Your task to perform on an android device: Open Yahoo.com Image 0: 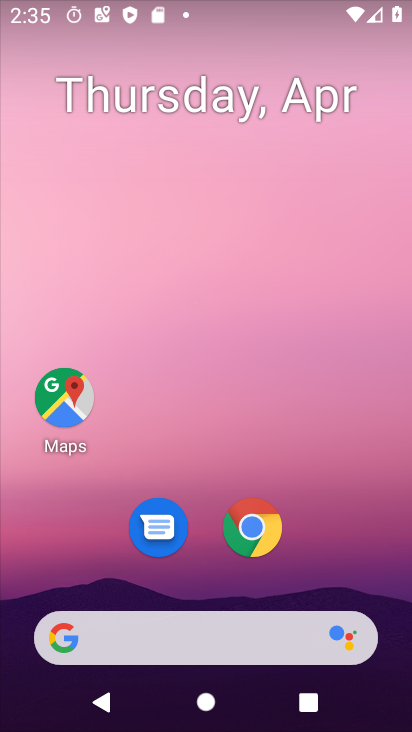
Step 0: click (247, 522)
Your task to perform on an android device: Open Yahoo.com Image 1: 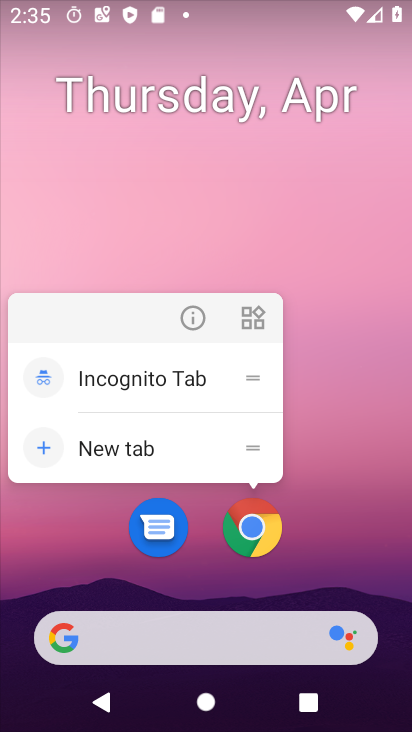
Step 1: click (263, 535)
Your task to perform on an android device: Open Yahoo.com Image 2: 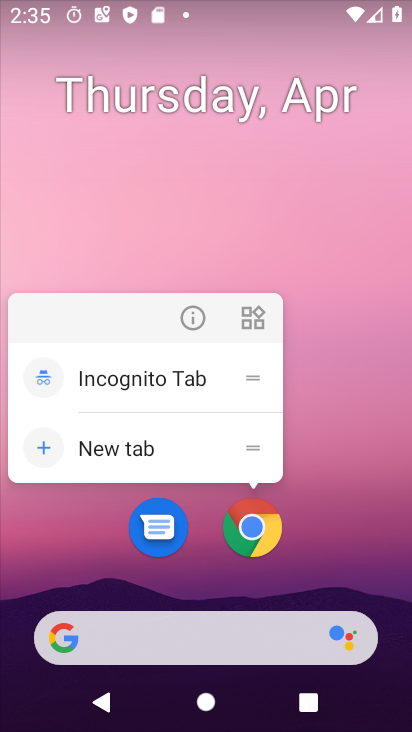
Step 2: click (258, 527)
Your task to perform on an android device: Open Yahoo.com Image 3: 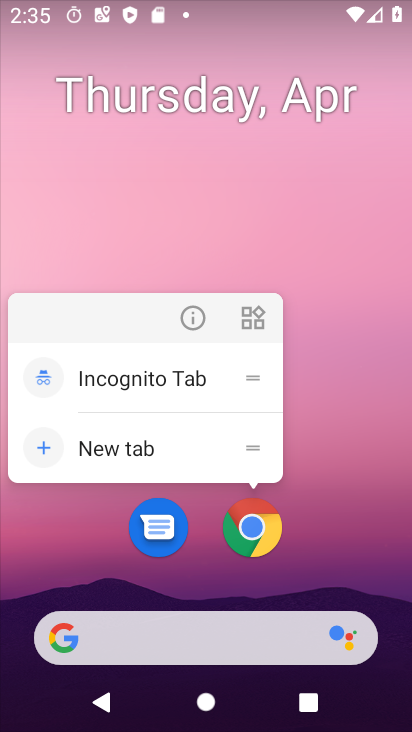
Step 3: click (234, 534)
Your task to perform on an android device: Open Yahoo.com Image 4: 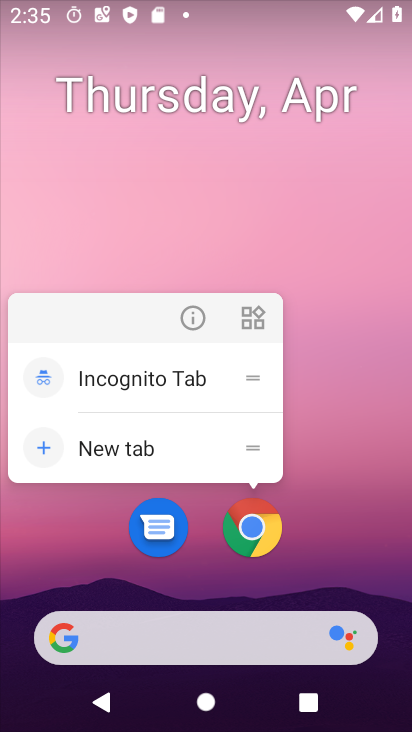
Step 4: drag from (319, 522) to (355, 75)
Your task to perform on an android device: Open Yahoo.com Image 5: 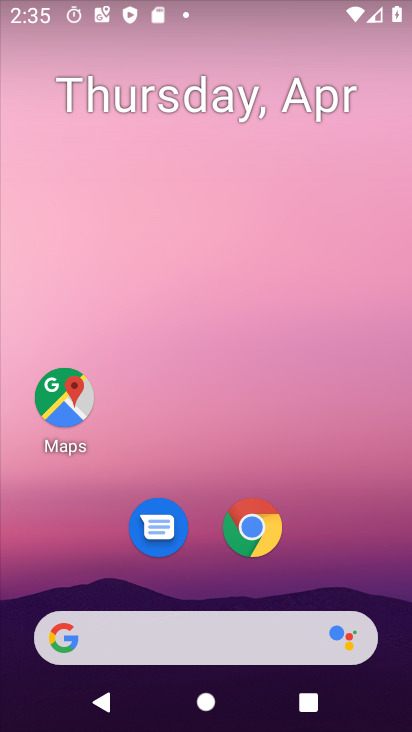
Step 5: drag from (363, 446) to (356, 81)
Your task to perform on an android device: Open Yahoo.com Image 6: 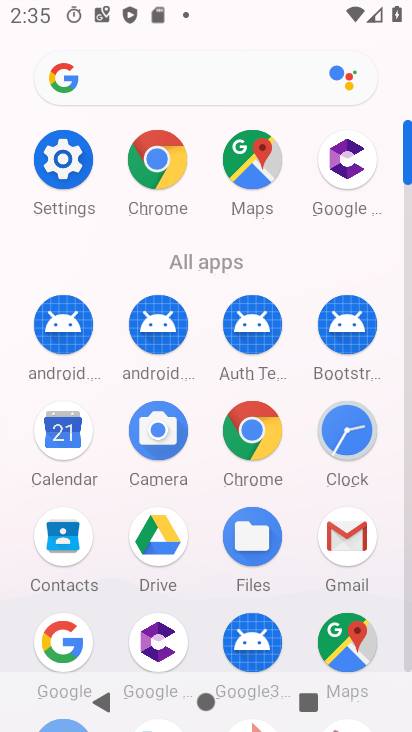
Step 6: click (249, 436)
Your task to perform on an android device: Open Yahoo.com Image 7: 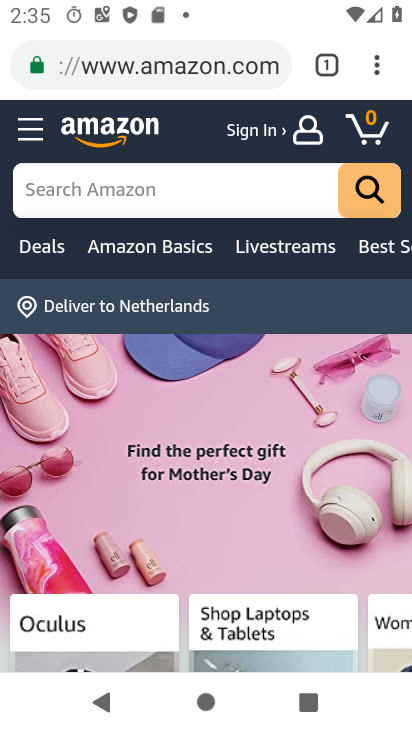
Step 7: click (243, 59)
Your task to perform on an android device: Open Yahoo.com Image 8: 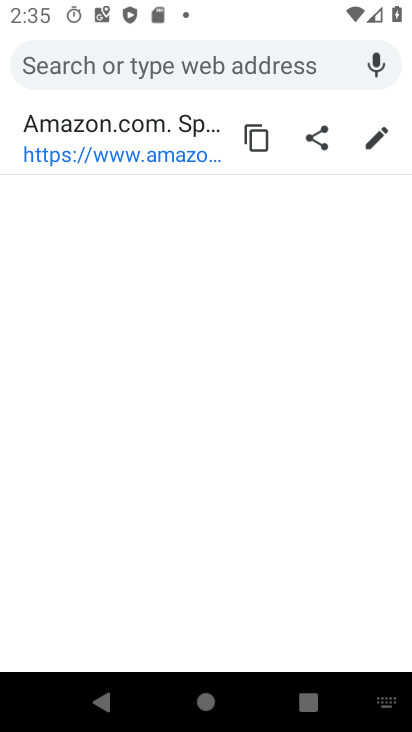
Step 8: type "yahoo.com"
Your task to perform on an android device: Open Yahoo.com Image 9: 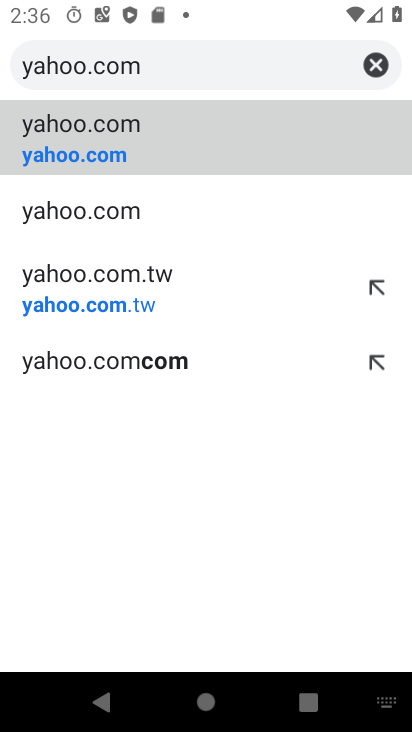
Step 9: click (57, 146)
Your task to perform on an android device: Open Yahoo.com Image 10: 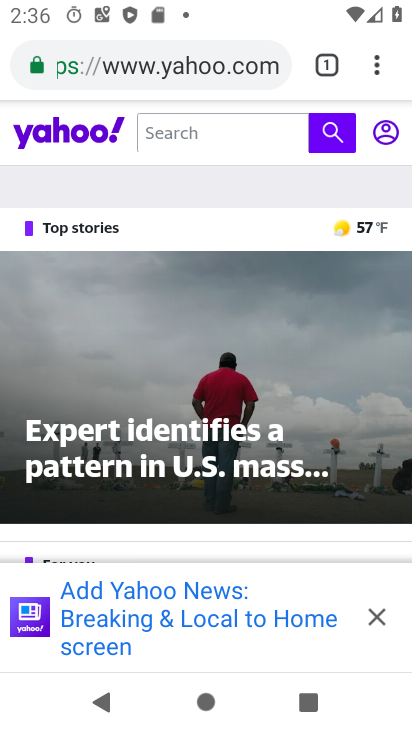
Step 10: task complete